Your task to perform on an android device: Open Google Chrome and open the bookmarks view Image 0: 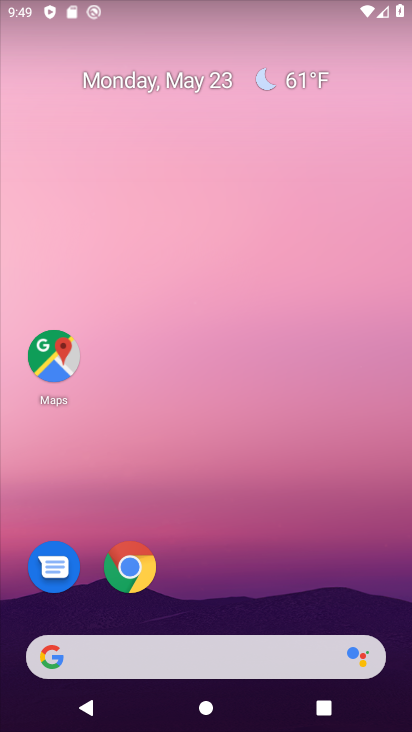
Step 0: click (126, 573)
Your task to perform on an android device: Open Google Chrome and open the bookmarks view Image 1: 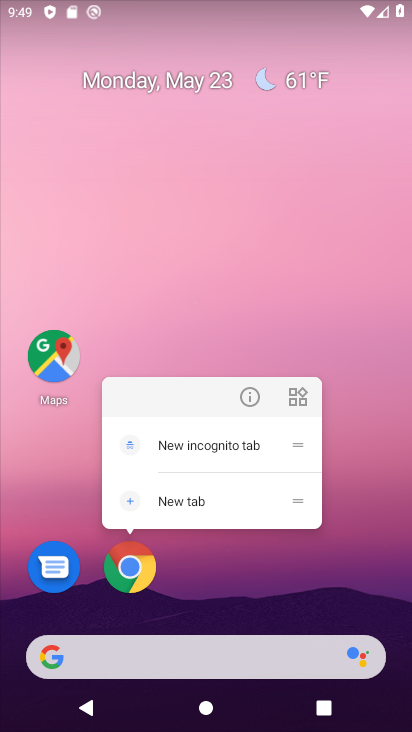
Step 1: click (143, 555)
Your task to perform on an android device: Open Google Chrome and open the bookmarks view Image 2: 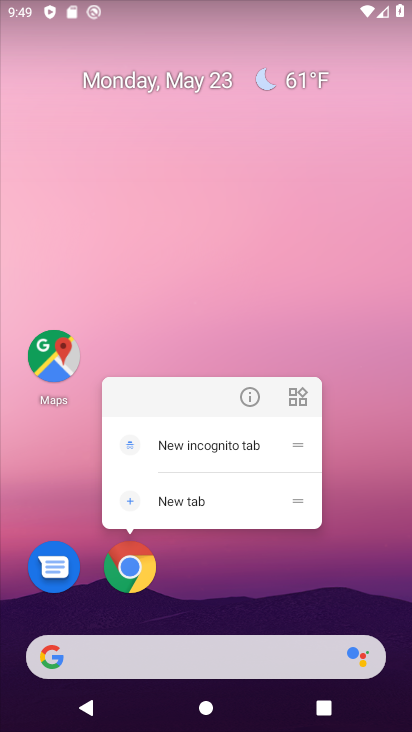
Step 2: click (133, 563)
Your task to perform on an android device: Open Google Chrome and open the bookmarks view Image 3: 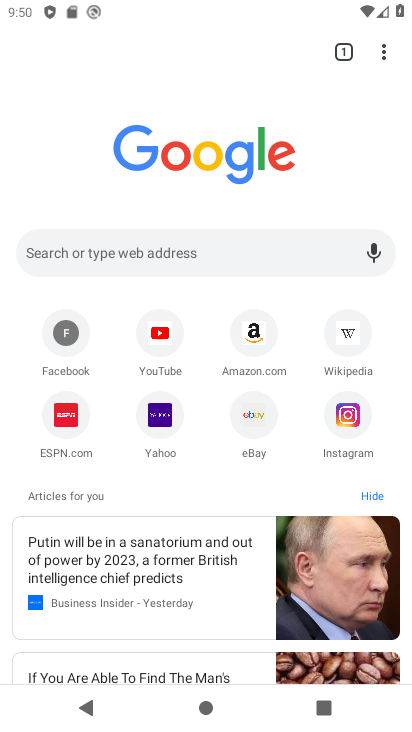
Step 3: task complete